Your task to perform on an android device: empty trash in the gmail app Image 0: 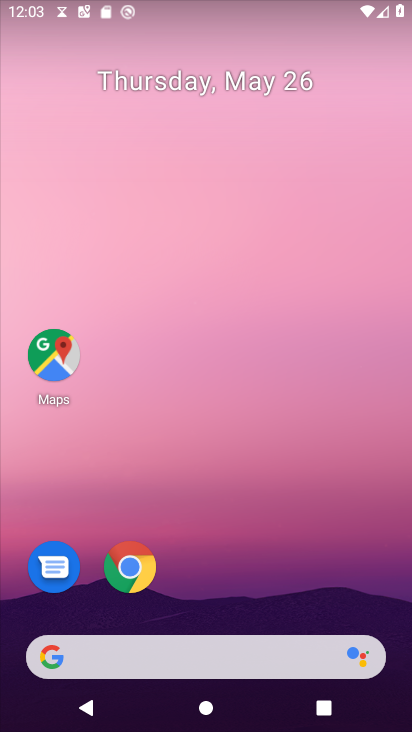
Step 0: drag from (266, 530) to (209, 1)
Your task to perform on an android device: empty trash in the gmail app Image 1: 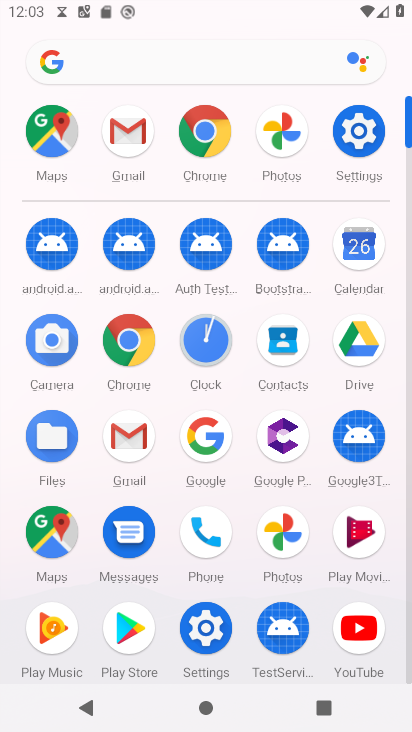
Step 1: click (125, 150)
Your task to perform on an android device: empty trash in the gmail app Image 2: 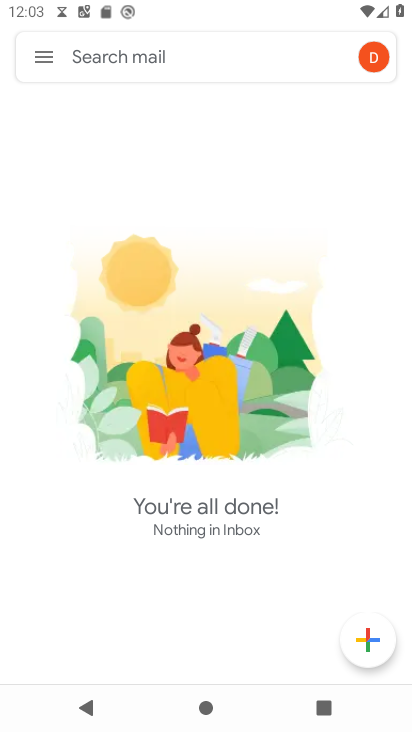
Step 2: click (44, 71)
Your task to perform on an android device: empty trash in the gmail app Image 3: 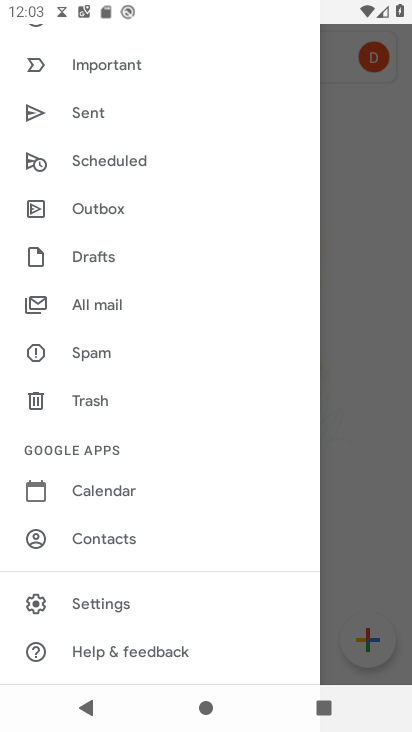
Step 3: drag from (143, 558) to (143, 177)
Your task to perform on an android device: empty trash in the gmail app Image 4: 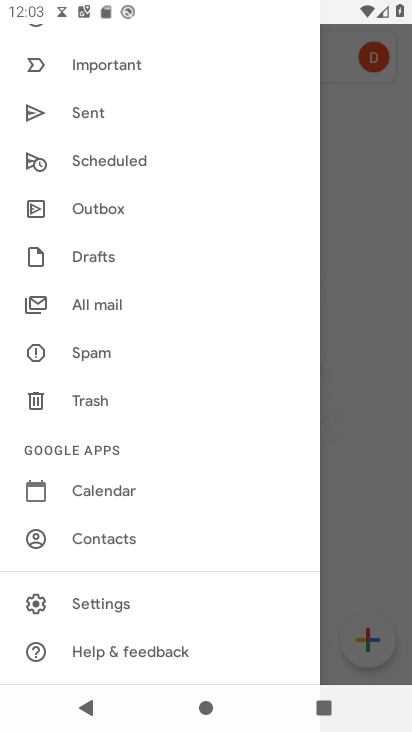
Step 4: click (95, 389)
Your task to perform on an android device: empty trash in the gmail app Image 5: 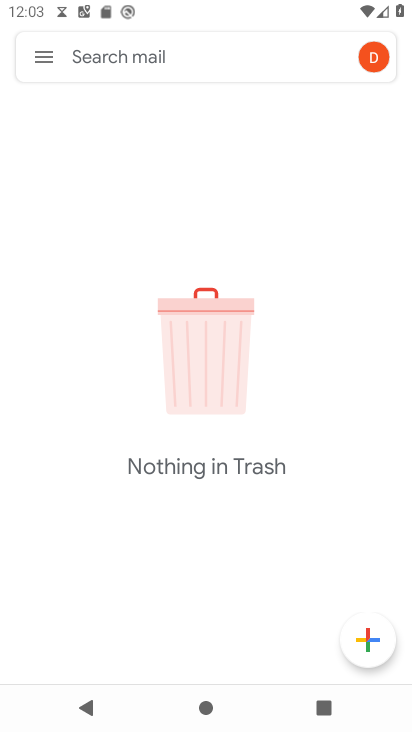
Step 5: task complete